Your task to perform on an android device: check google app version Image 0: 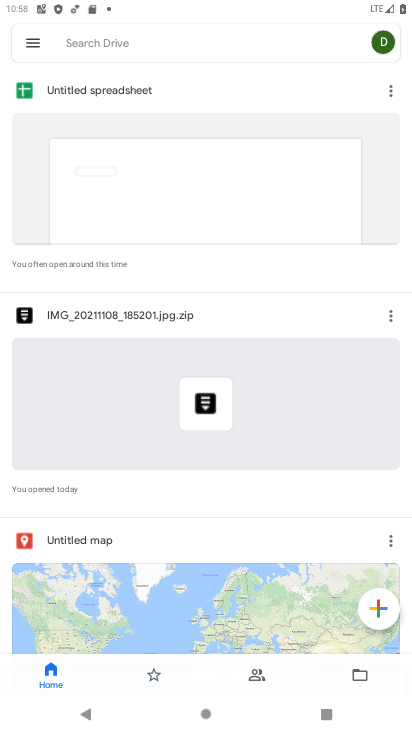
Step 0: press home button
Your task to perform on an android device: check google app version Image 1: 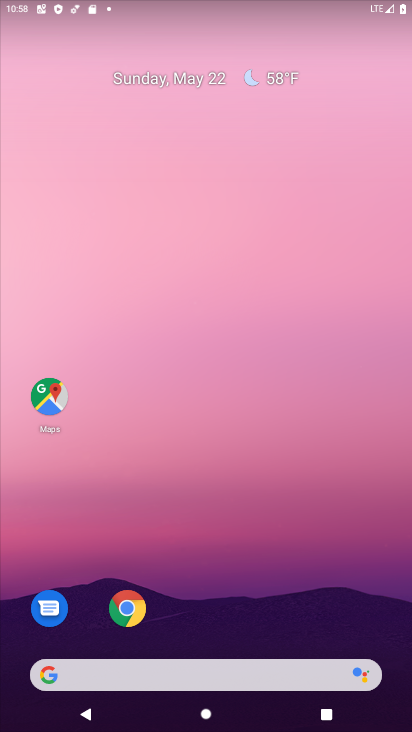
Step 1: drag from (232, 725) to (189, 142)
Your task to perform on an android device: check google app version Image 2: 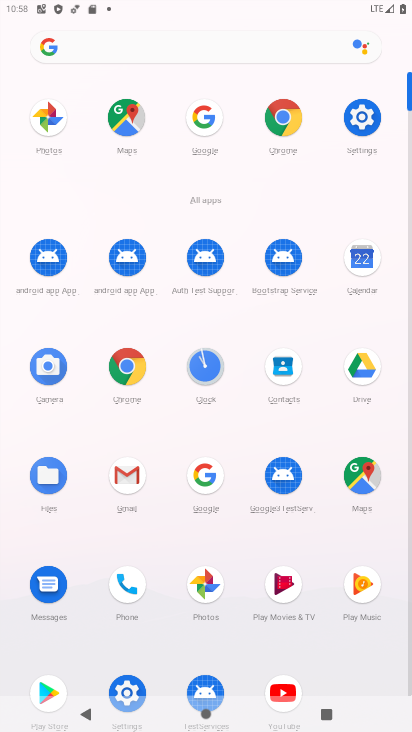
Step 2: click (208, 479)
Your task to perform on an android device: check google app version Image 3: 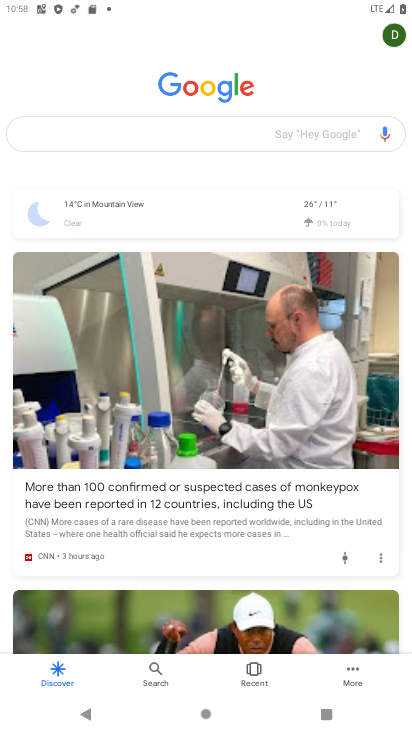
Step 3: click (354, 667)
Your task to perform on an android device: check google app version Image 4: 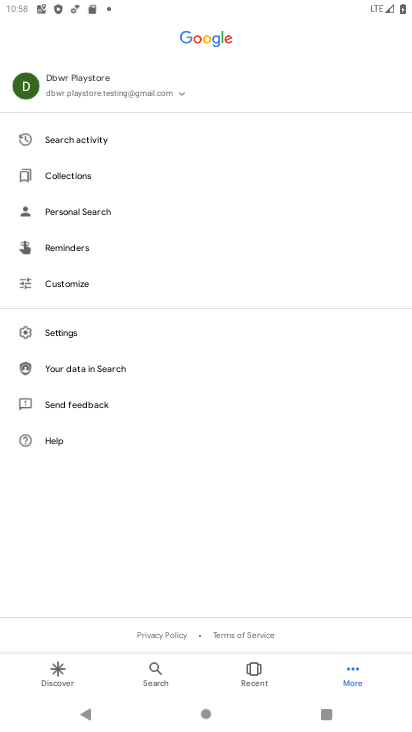
Step 4: click (50, 328)
Your task to perform on an android device: check google app version Image 5: 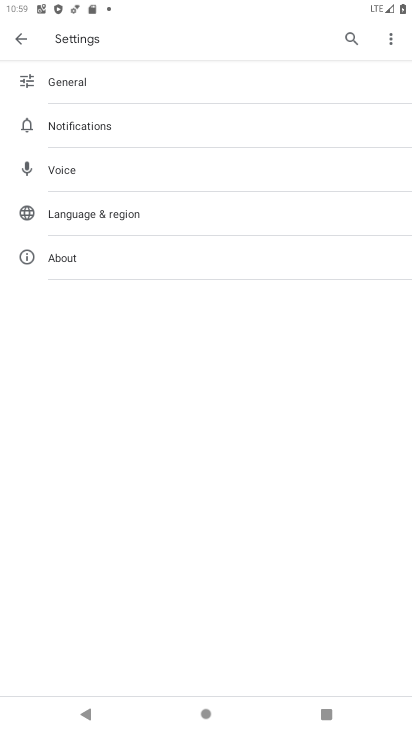
Step 5: click (58, 258)
Your task to perform on an android device: check google app version Image 6: 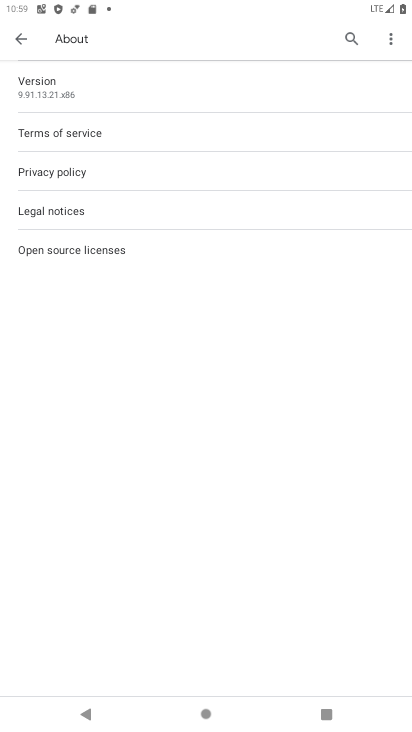
Step 6: task complete